Your task to perform on an android device: toggle wifi Image 0: 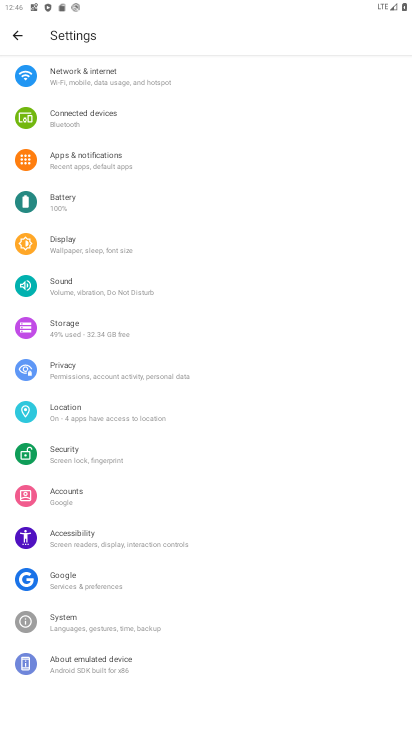
Step 0: click (121, 84)
Your task to perform on an android device: toggle wifi Image 1: 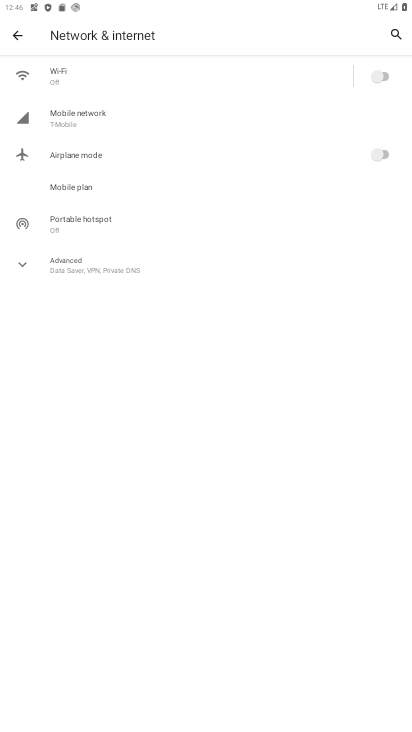
Step 1: click (381, 79)
Your task to perform on an android device: toggle wifi Image 2: 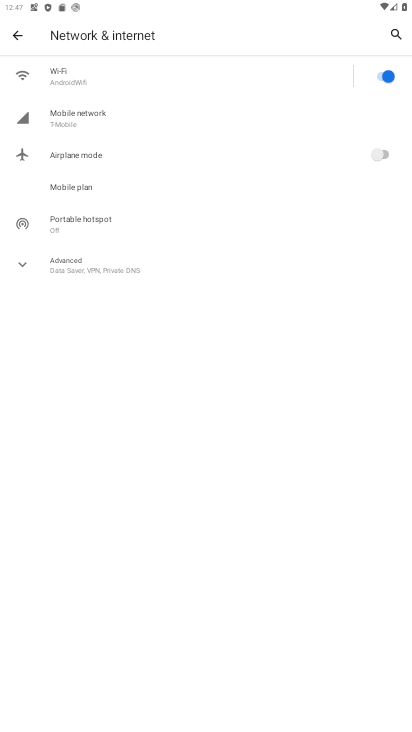
Step 2: task complete